Your task to perform on an android device: change alarm snooze length Image 0: 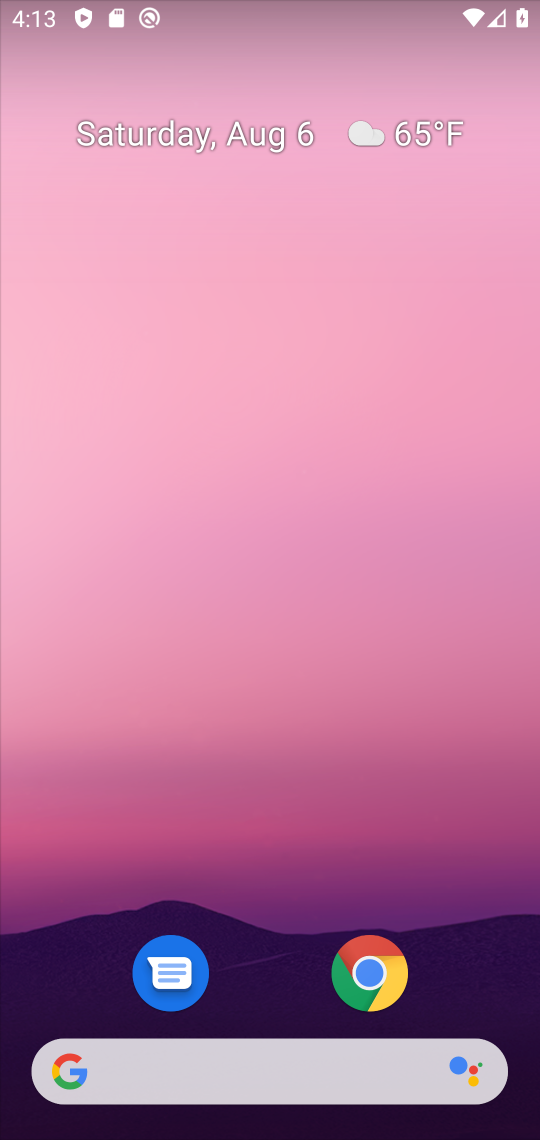
Step 0: drag from (289, 891) to (312, 99)
Your task to perform on an android device: change alarm snooze length Image 1: 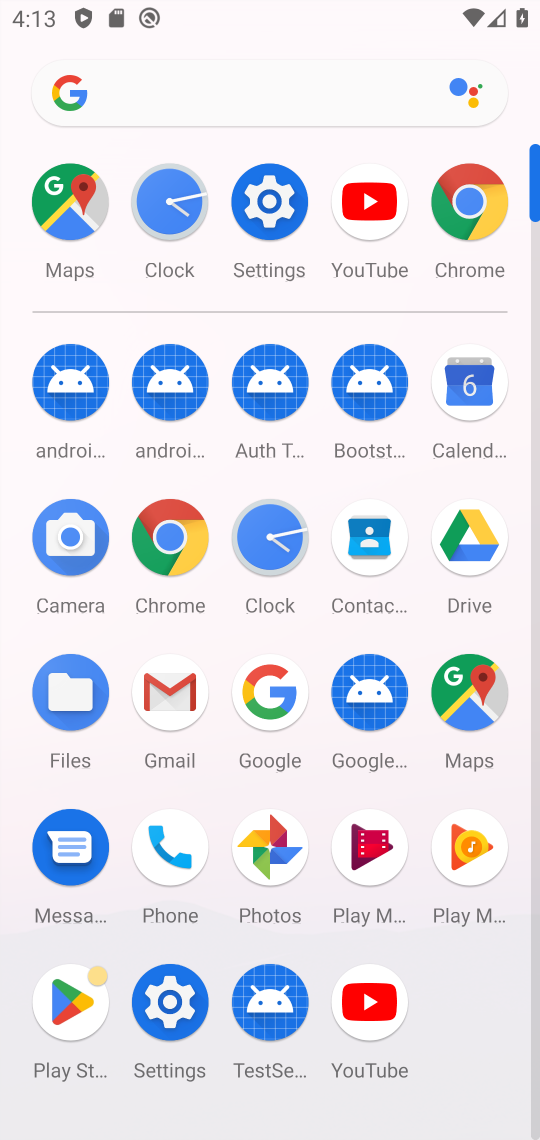
Step 1: click (283, 546)
Your task to perform on an android device: change alarm snooze length Image 2: 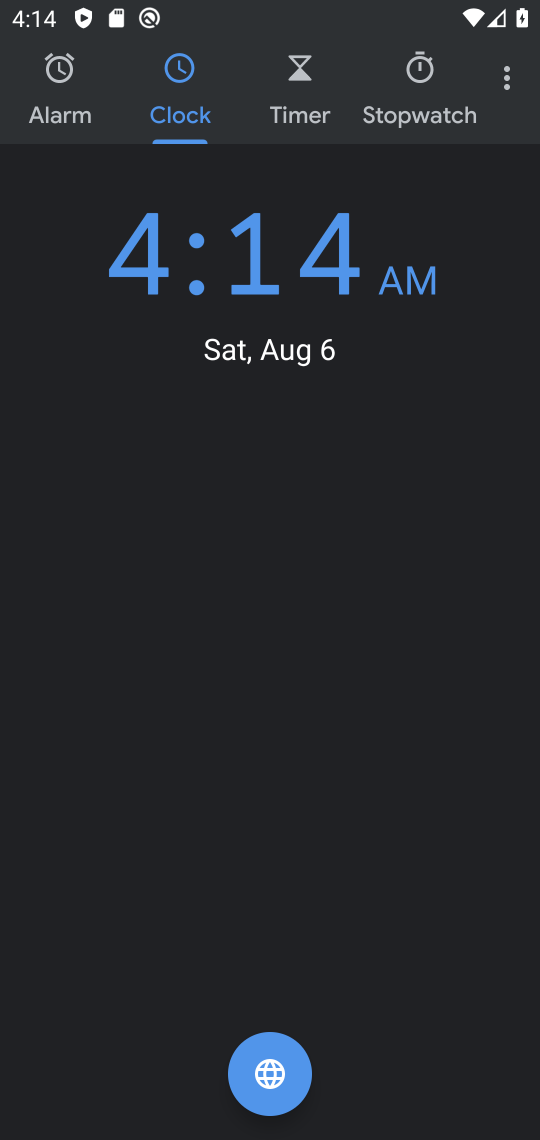
Step 2: click (520, 88)
Your task to perform on an android device: change alarm snooze length Image 3: 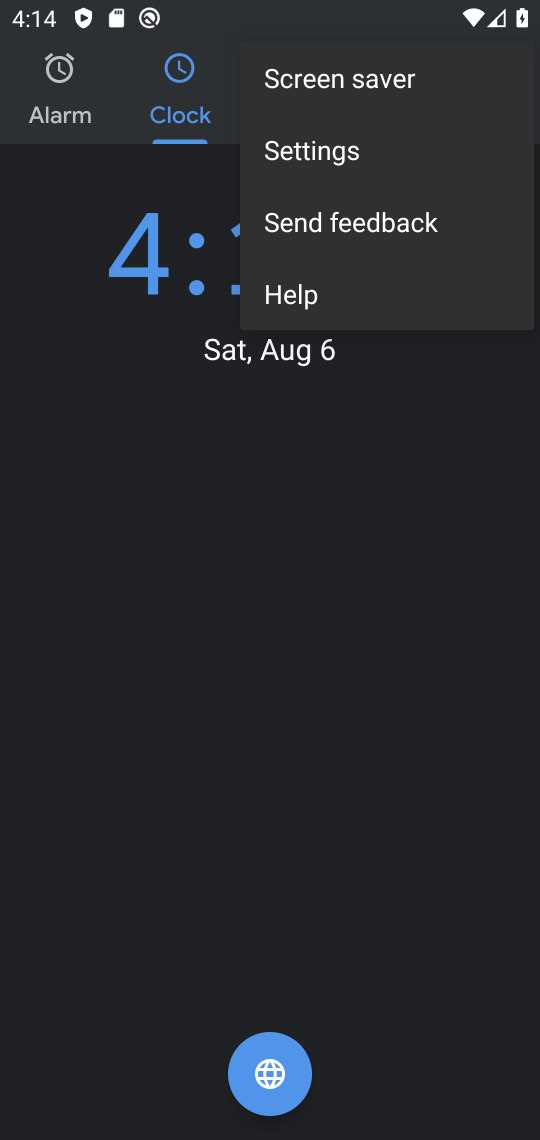
Step 3: click (316, 139)
Your task to perform on an android device: change alarm snooze length Image 4: 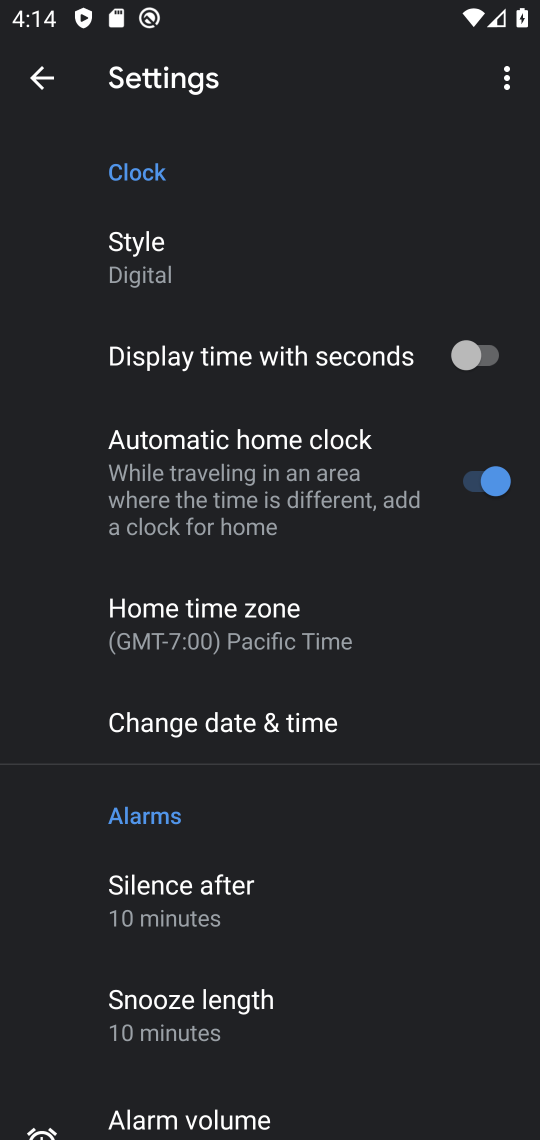
Step 4: click (258, 1008)
Your task to perform on an android device: change alarm snooze length Image 5: 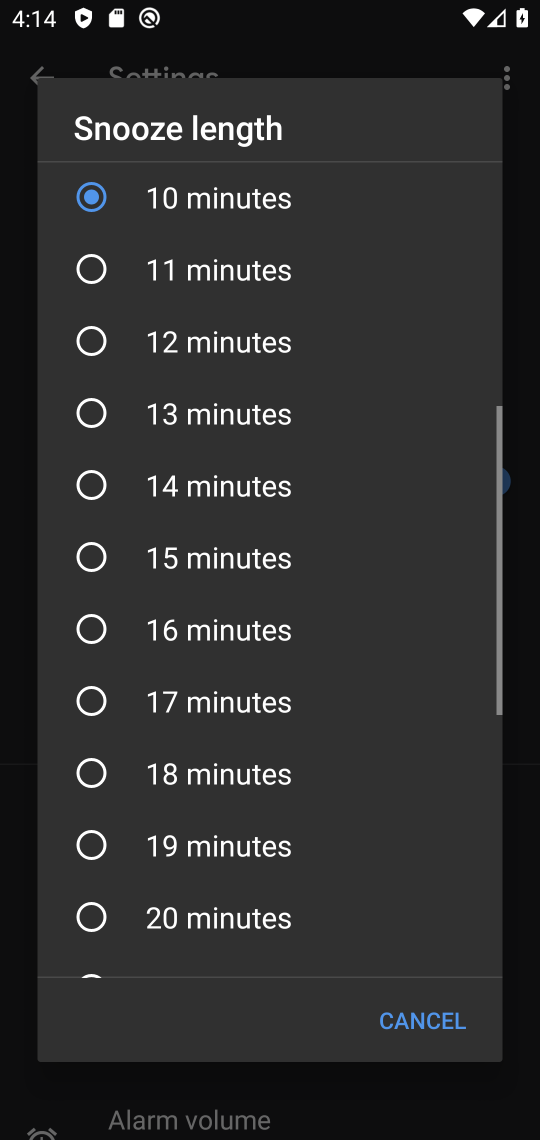
Step 5: click (223, 273)
Your task to perform on an android device: change alarm snooze length Image 6: 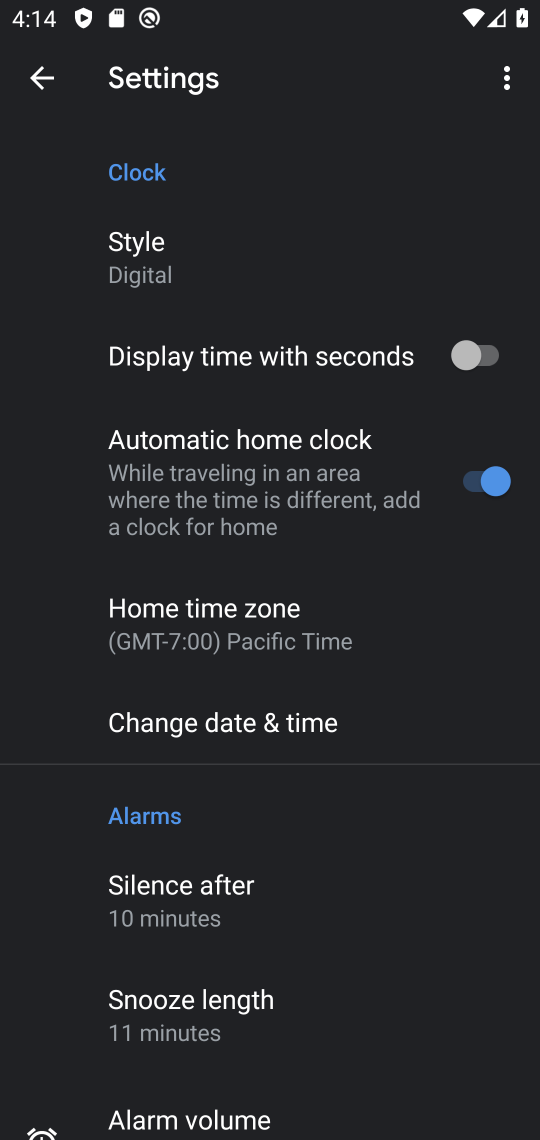
Step 6: task complete